Your task to perform on an android device: Open internet settings Image 0: 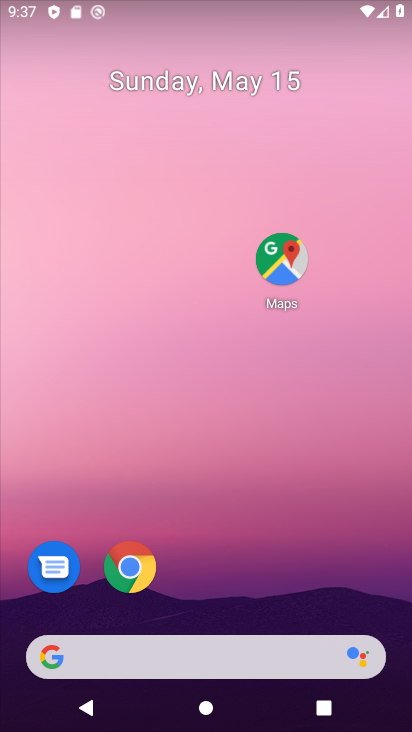
Step 0: drag from (291, 453) to (230, 74)
Your task to perform on an android device: Open internet settings Image 1: 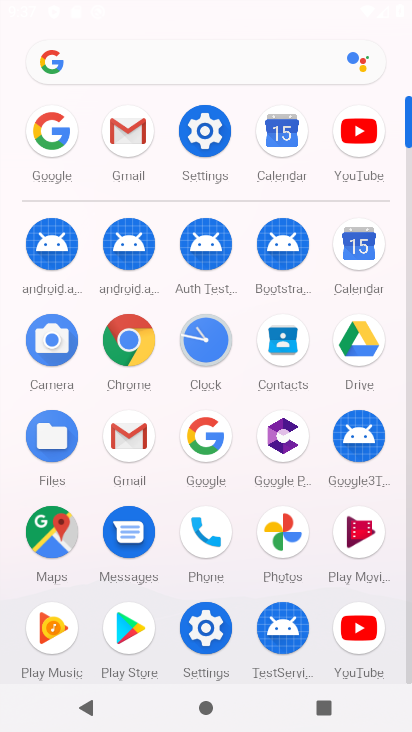
Step 1: click (204, 125)
Your task to perform on an android device: Open internet settings Image 2: 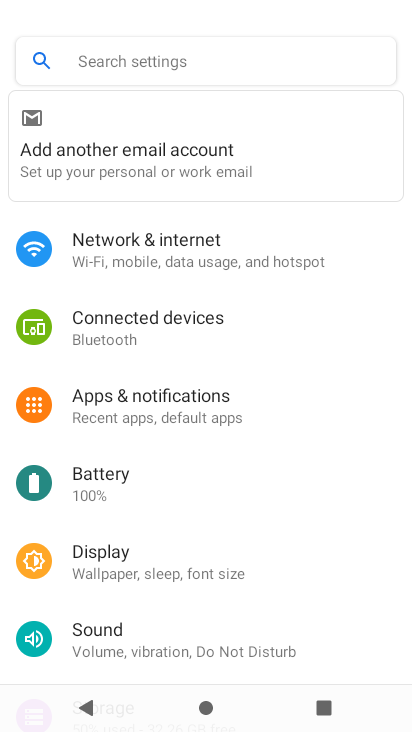
Step 2: click (137, 252)
Your task to perform on an android device: Open internet settings Image 3: 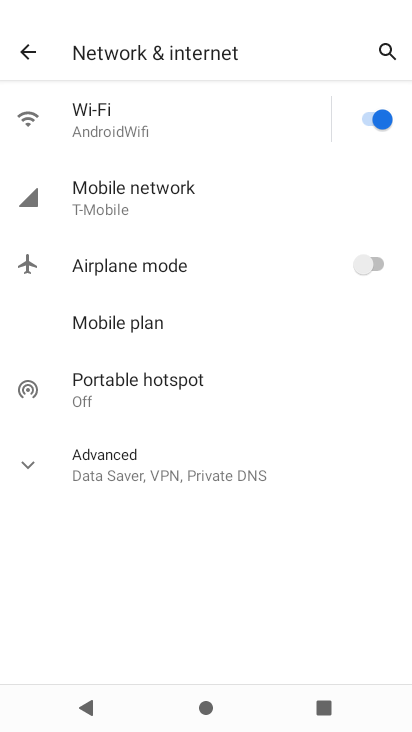
Step 3: click (140, 114)
Your task to perform on an android device: Open internet settings Image 4: 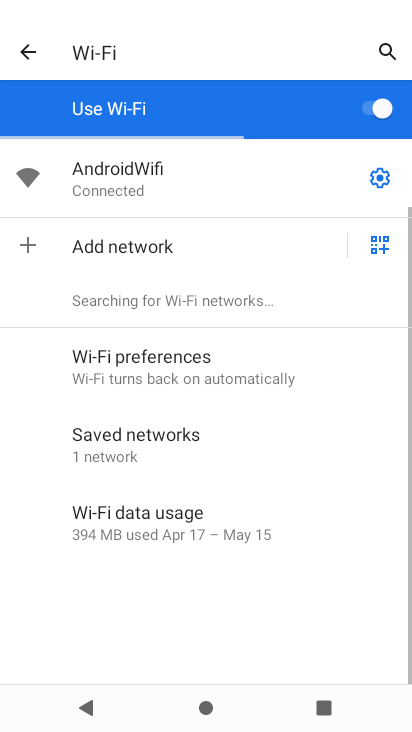
Step 4: click (376, 171)
Your task to perform on an android device: Open internet settings Image 5: 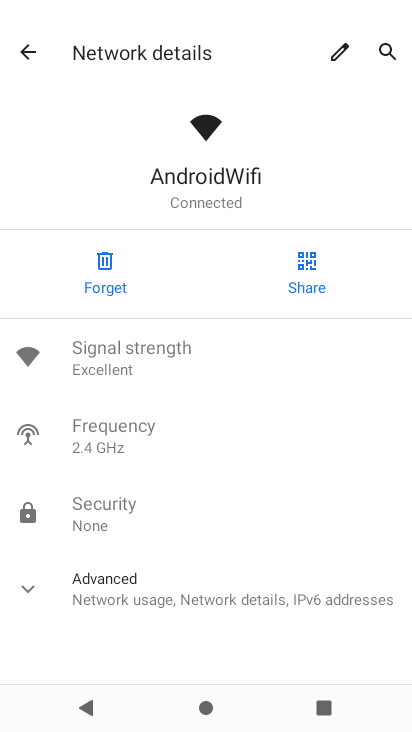
Step 5: task complete